Your task to perform on an android device: Check the news Image 0: 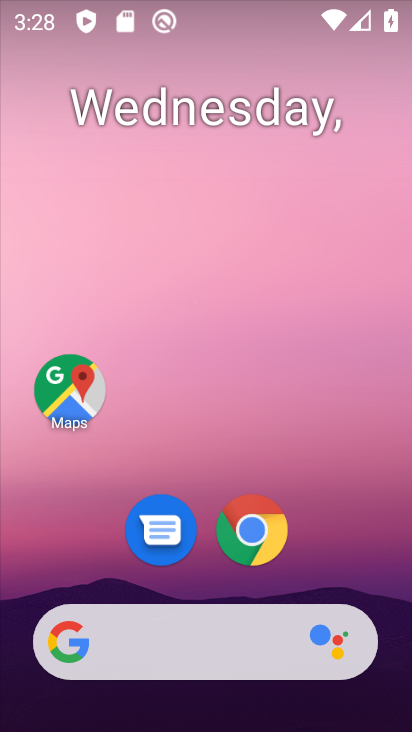
Step 0: click (251, 648)
Your task to perform on an android device: Check the news Image 1: 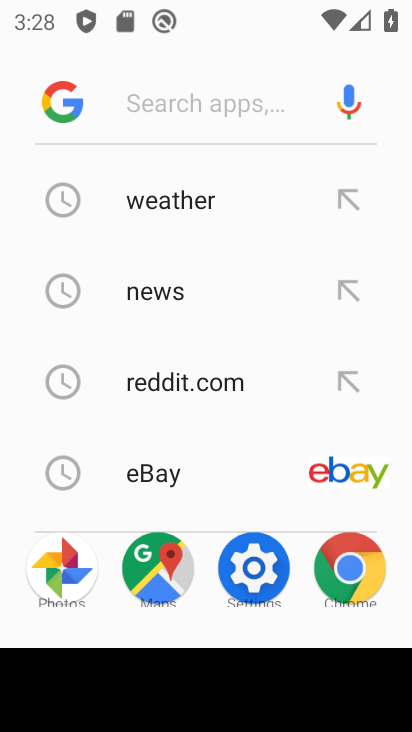
Step 1: click (147, 294)
Your task to perform on an android device: Check the news Image 2: 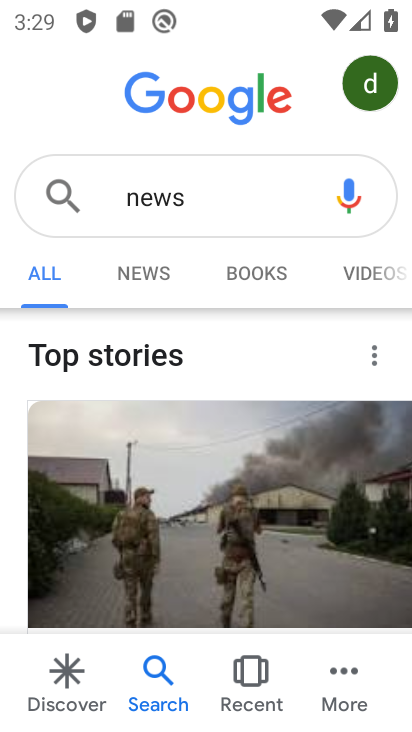
Step 2: task complete